Your task to perform on an android device: Set the phone to "Do not disturb". Image 0: 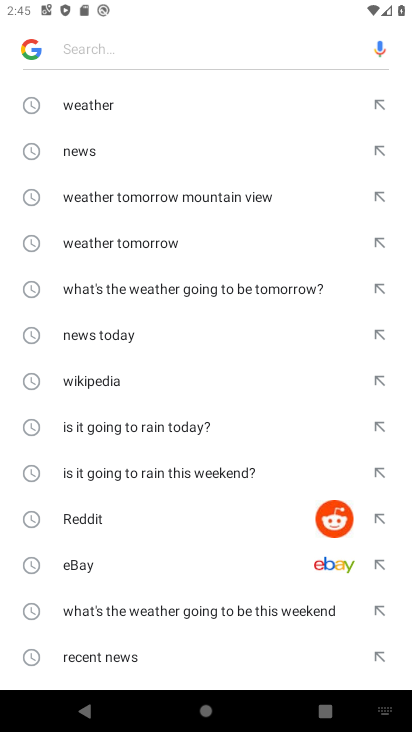
Step 0: press home button
Your task to perform on an android device: Set the phone to "Do not disturb". Image 1: 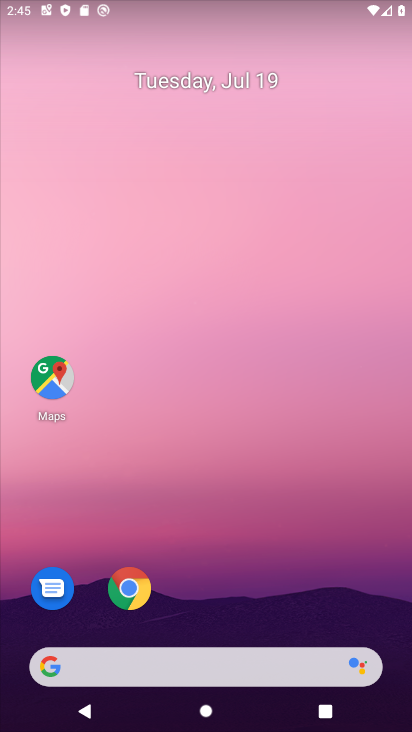
Step 1: drag from (198, 420) to (195, 219)
Your task to perform on an android device: Set the phone to "Do not disturb". Image 2: 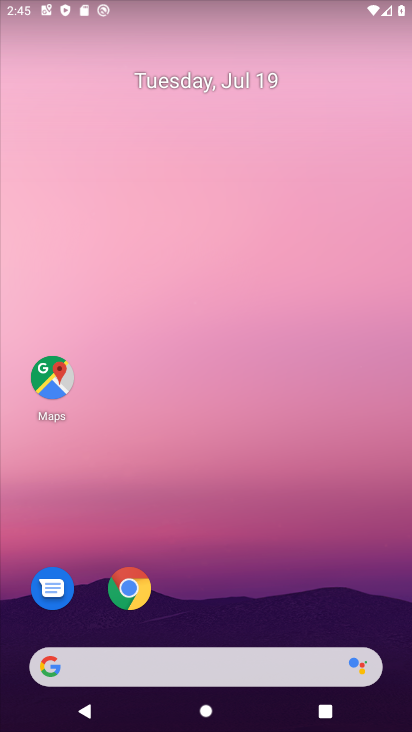
Step 2: drag from (184, 565) to (216, 155)
Your task to perform on an android device: Set the phone to "Do not disturb". Image 3: 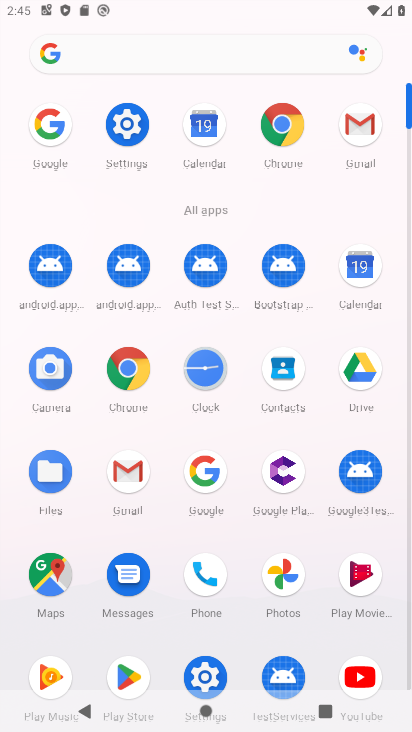
Step 3: click (128, 122)
Your task to perform on an android device: Set the phone to "Do not disturb". Image 4: 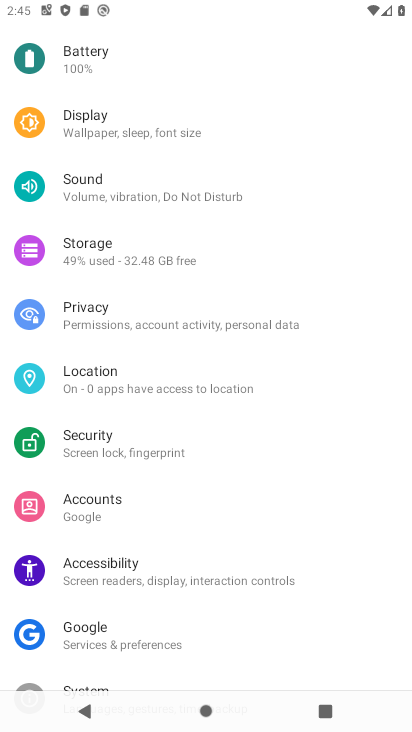
Step 4: click (106, 203)
Your task to perform on an android device: Set the phone to "Do not disturb". Image 5: 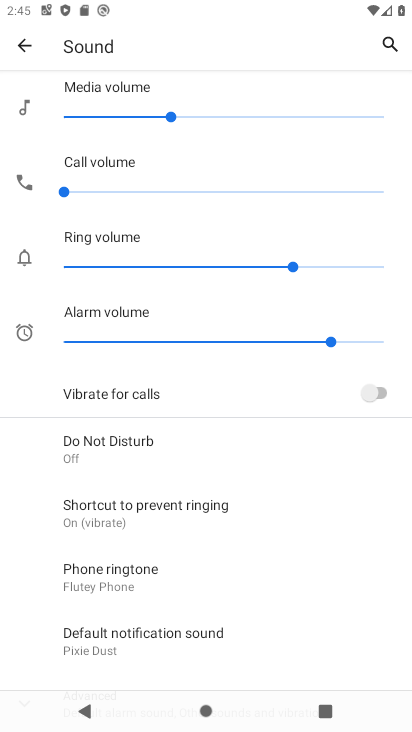
Step 5: click (73, 448)
Your task to perform on an android device: Set the phone to "Do not disturb". Image 6: 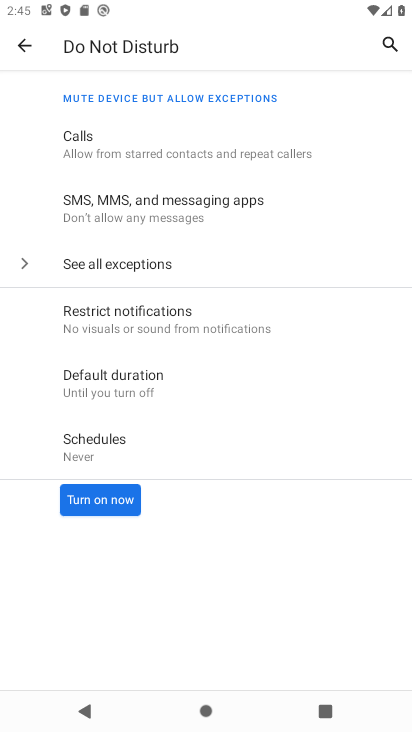
Step 6: click (81, 504)
Your task to perform on an android device: Set the phone to "Do not disturb". Image 7: 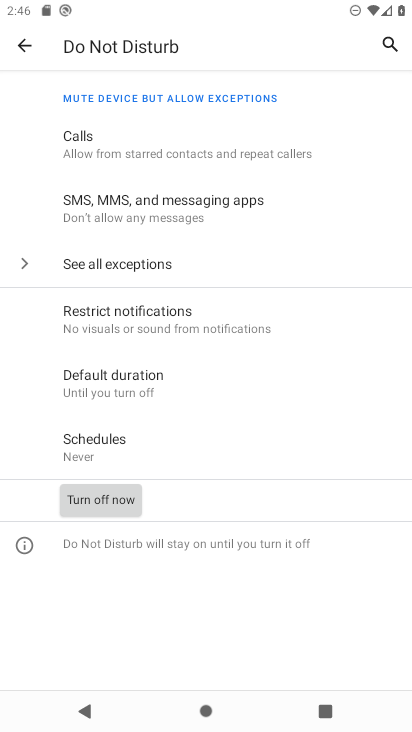
Step 7: task complete